Your task to perform on an android device: Turn on the flashlight Image 0: 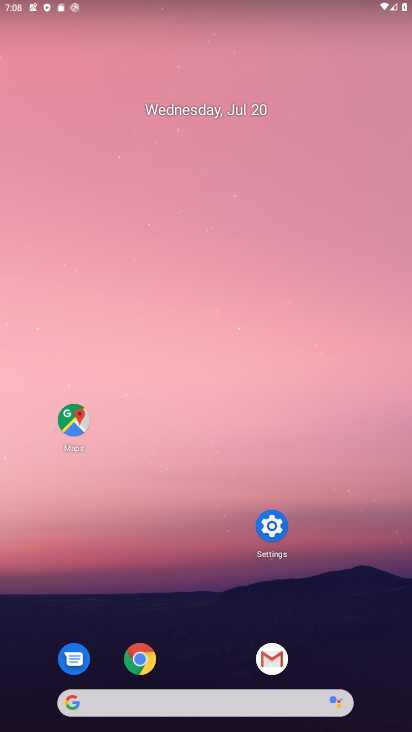
Step 0: click (282, 525)
Your task to perform on an android device: Turn on the flashlight Image 1: 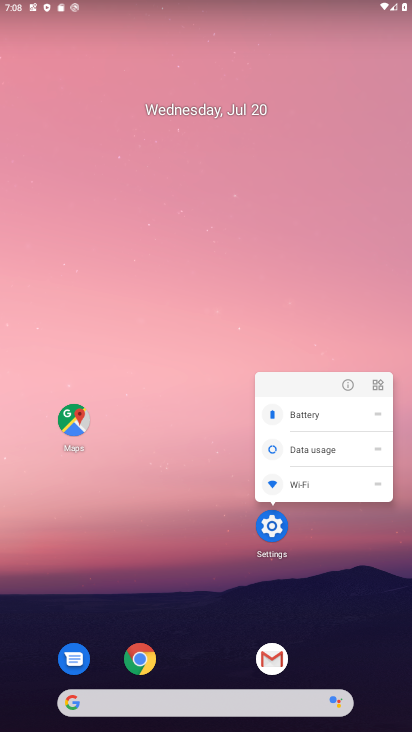
Step 1: click (265, 527)
Your task to perform on an android device: Turn on the flashlight Image 2: 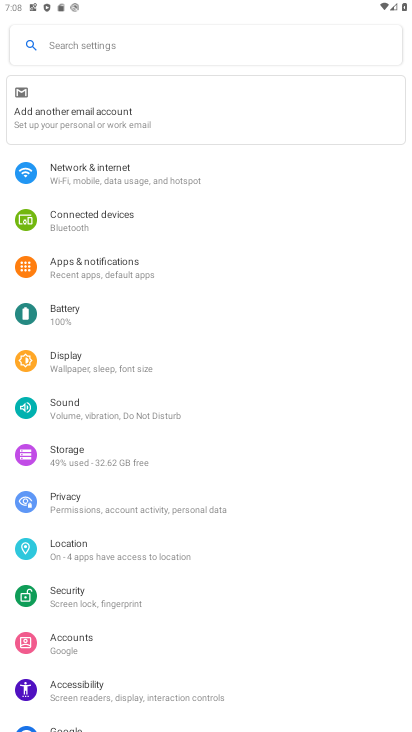
Step 2: click (72, 46)
Your task to perform on an android device: Turn on the flashlight Image 3: 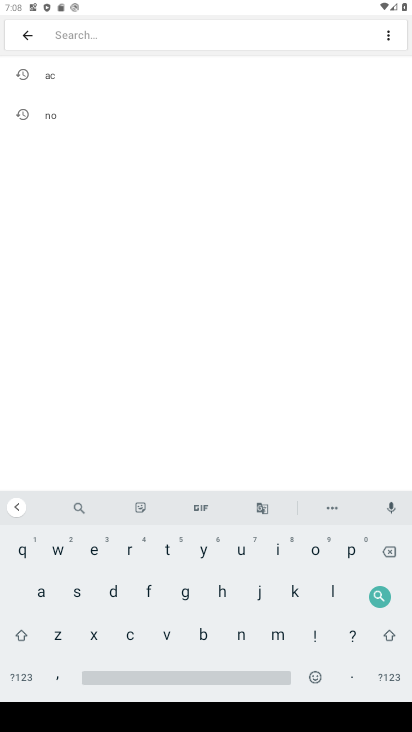
Step 3: click (150, 587)
Your task to perform on an android device: Turn on the flashlight Image 4: 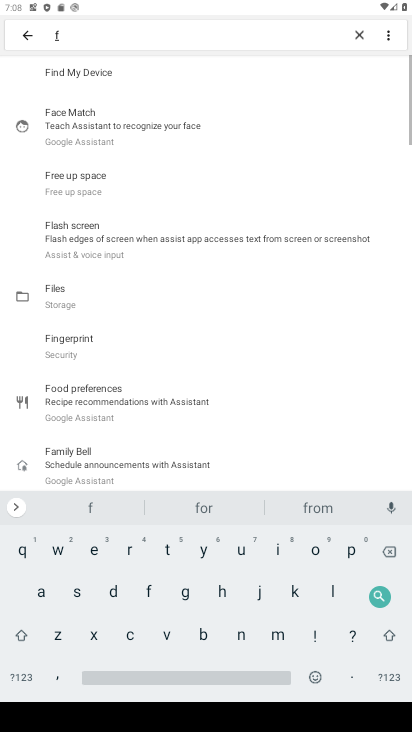
Step 4: click (337, 594)
Your task to perform on an android device: Turn on the flashlight Image 5: 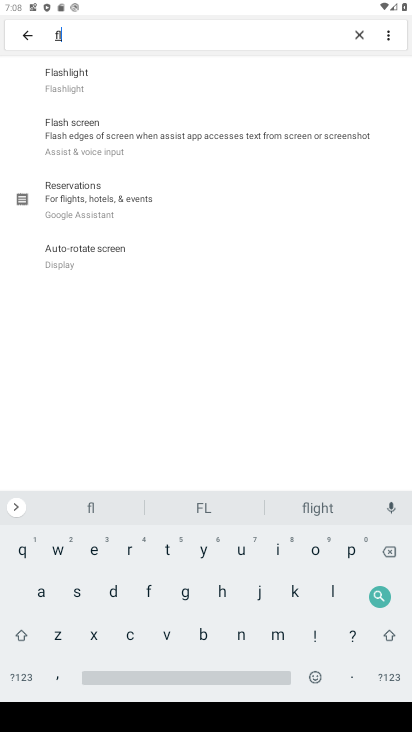
Step 5: click (88, 83)
Your task to perform on an android device: Turn on the flashlight Image 6: 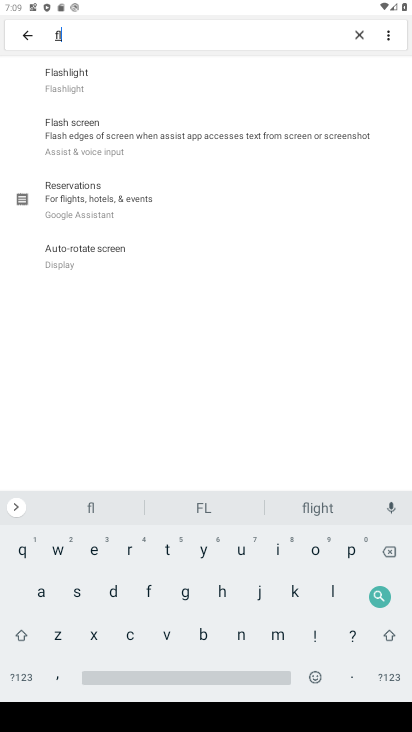
Step 6: click (101, 71)
Your task to perform on an android device: Turn on the flashlight Image 7: 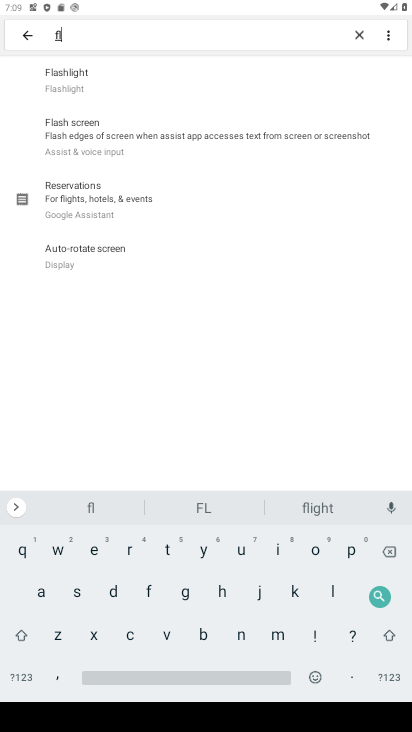
Step 7: task complete